Your task to perform on an android device: see sites visited before in the chrome app Image 0: 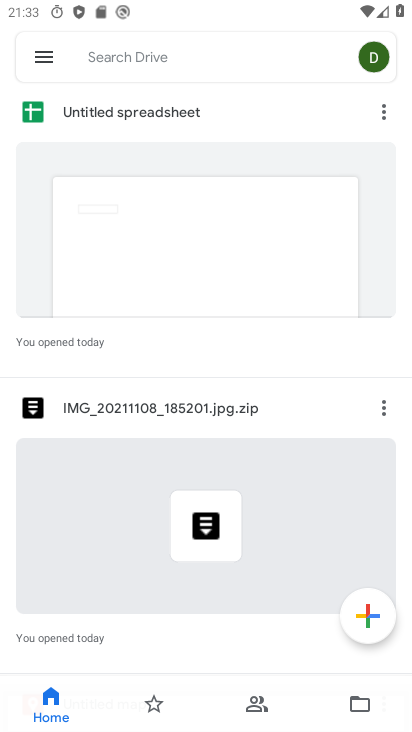
Step 0: press home button
Your task to perform on an android device: see sites visited before in the chrome app Image 1: 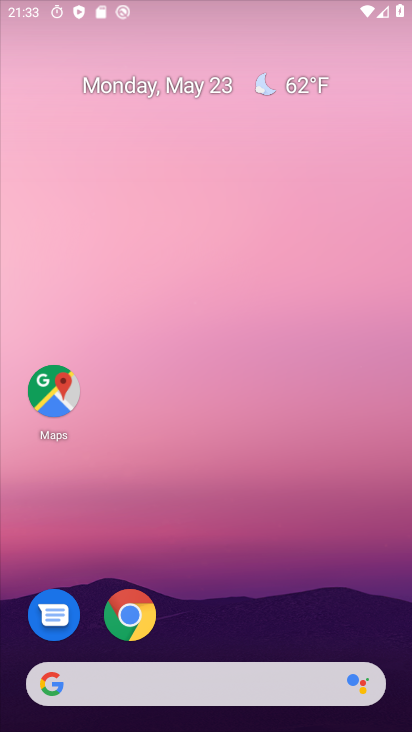
Step 1: click (116, 622)
Your task to perform on an android device: see sites visited before in the chrome app Image 2: 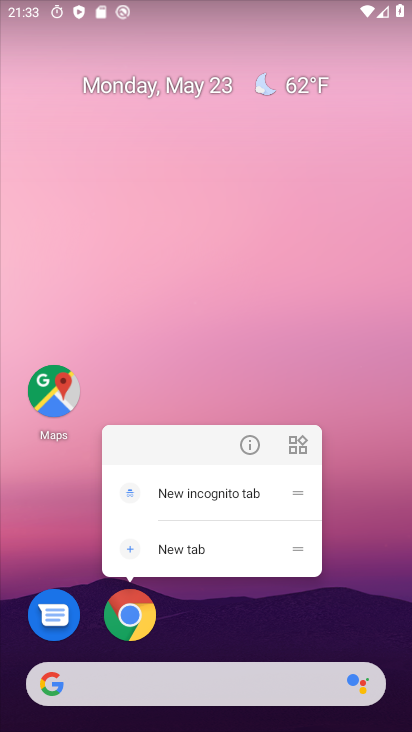
Step 2: click (124, 623)
Your task to perform on an android device: see sites visited before in the chrome app Image 3: 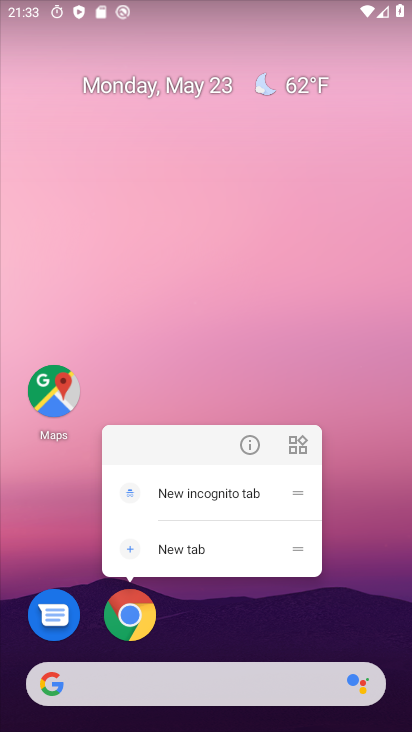
Step 3: click (132, 612)
Your task to perform on an android device: see sites visited before in the chrome app Image 4: 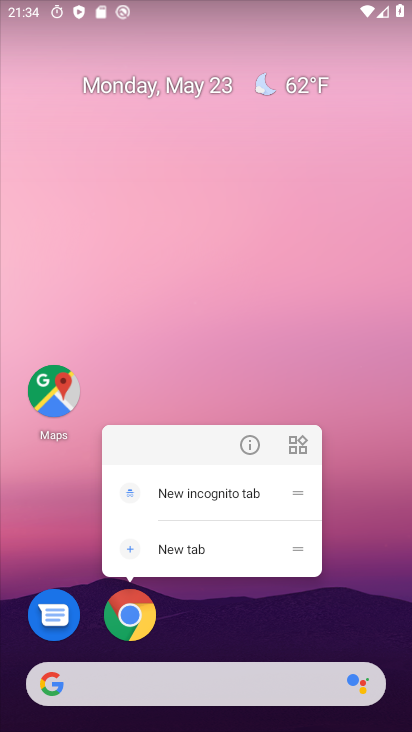
Step 4: click (131, 613)
Your task to perform on an android device: see sites visited before in the chrome app Image 5: 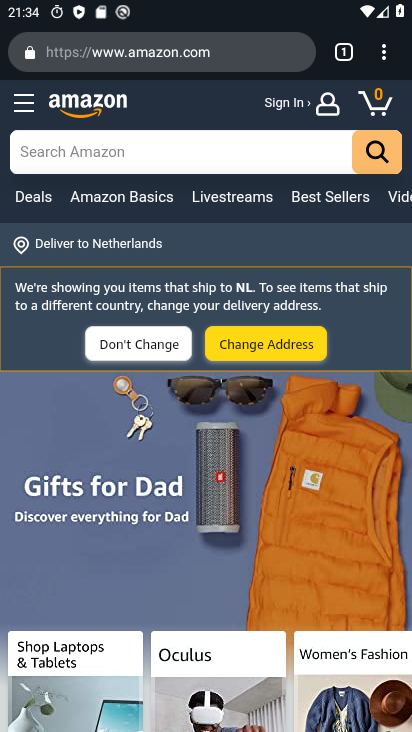
Step 5: click (378, 53)
Your task to perform on an android device: see sites visited before in the chrome app Image 6: 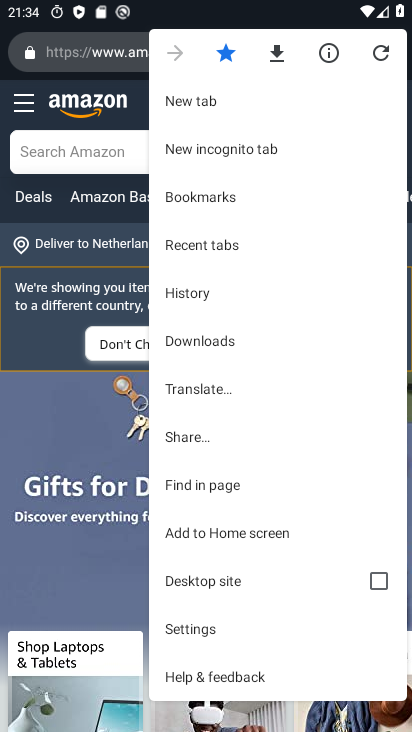
Step 6: click (231, 301)
Your task to perform on an android device: see sites visited before in the chrome app Image 7: 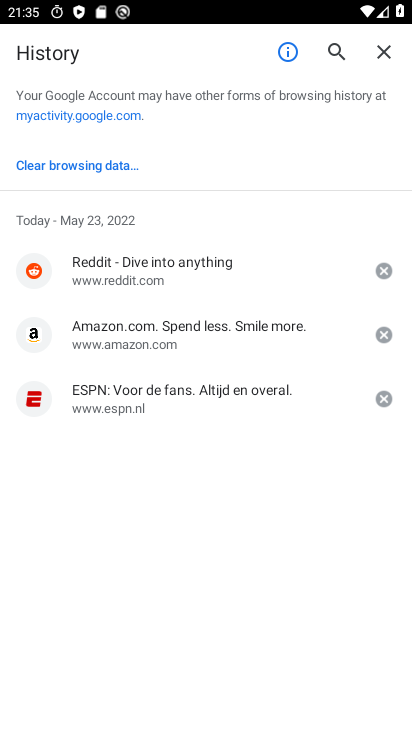
Step 7: task complete